Your task to perform on an android device: Is it going to rain this weekend? Image 0: 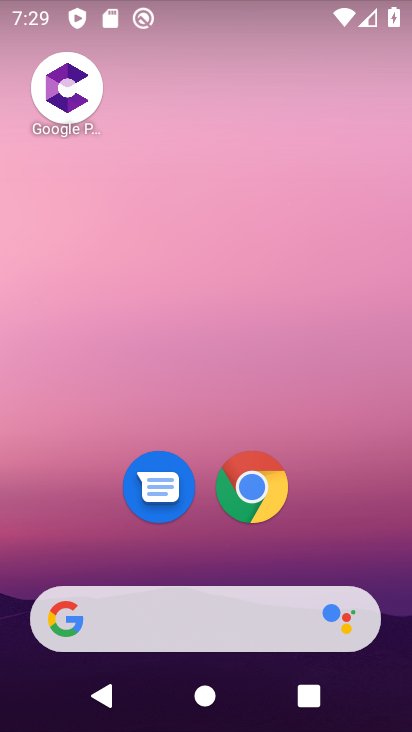
Step 0: drag from (370, 529) to (366, 85)
Your task to perform on an android device: Is it going to rain this weekend? Image 1: 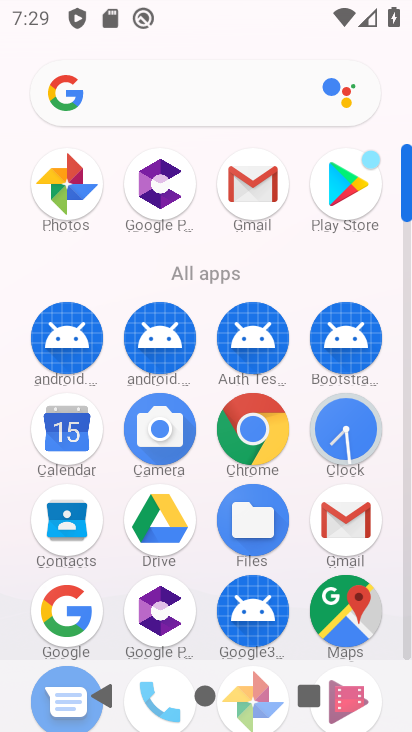
Step 1: click (237, 424)
Your task to perform on an android device: Is it going to rain this weekend? Image 2: 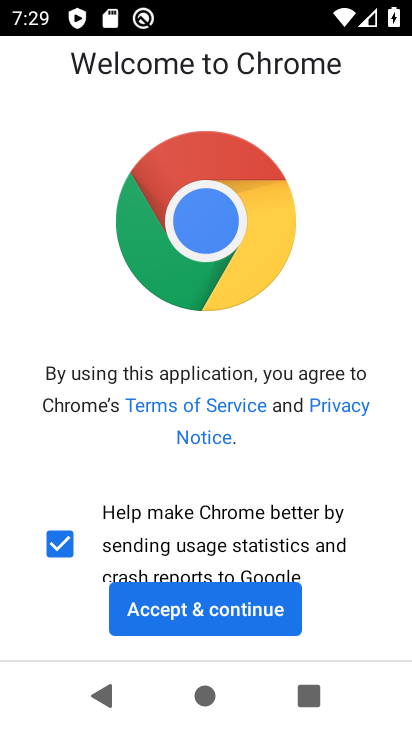
Step 2: click (192, 623)
Your task to perform on an android device: Is it going to rain this weekend? Image 3: 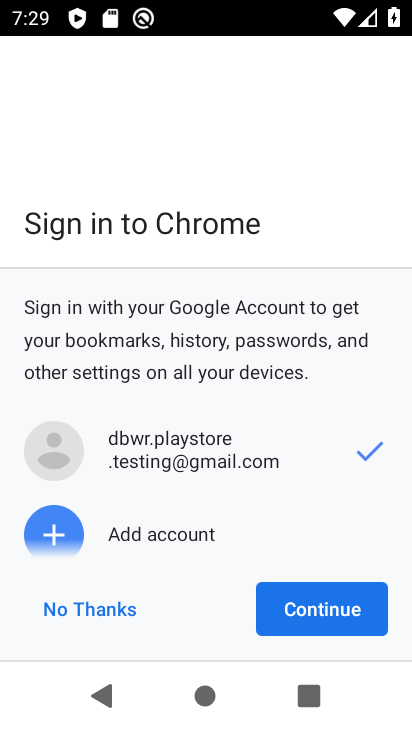
Step 3: click (303, 615)
Your task to perform on an android device: Is it going to rain this weekend? Image 4: 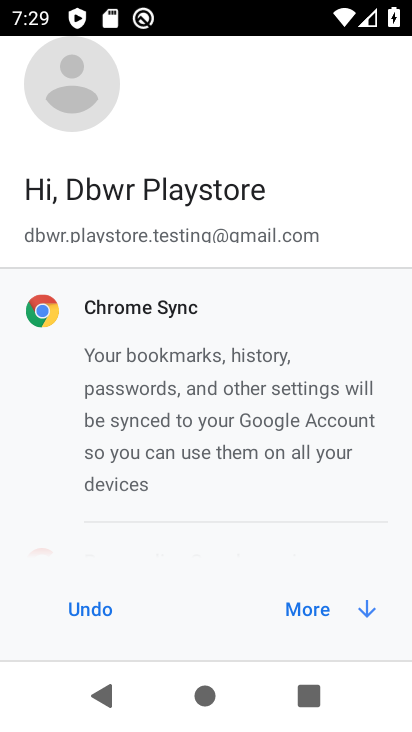
Step 4: click (295, 611)
Your task to perform on an android device: Is it going to rain this weekend? Image 5: 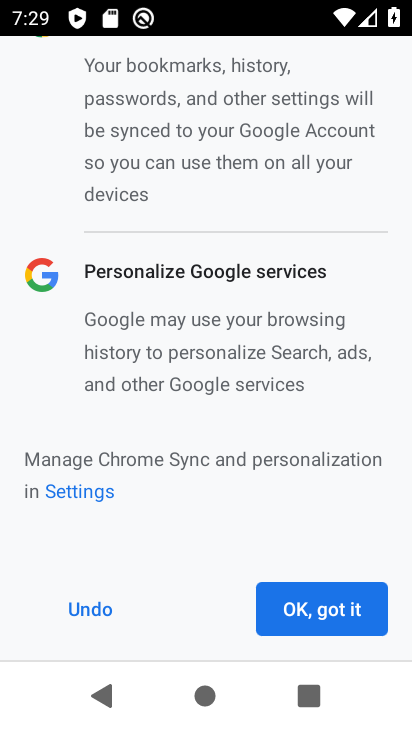
Step 5: click (297, 617)
Your task to perform on an android device: Is it going to rain this weekend? Image 6: 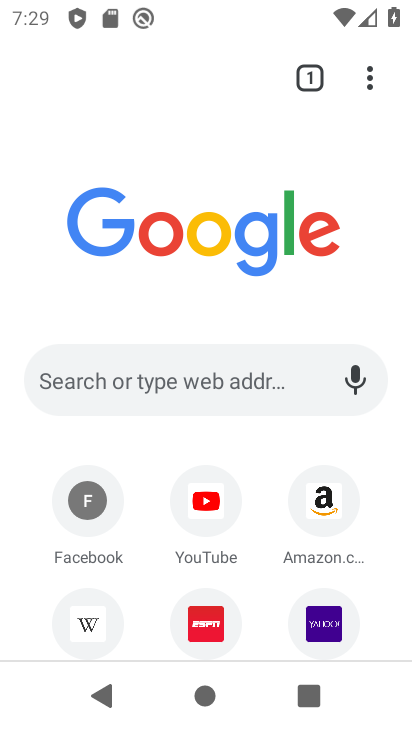
Step 6: click (231, 383)
Your task to perform on an android device: Is it going to rain this weekend? Image 7: 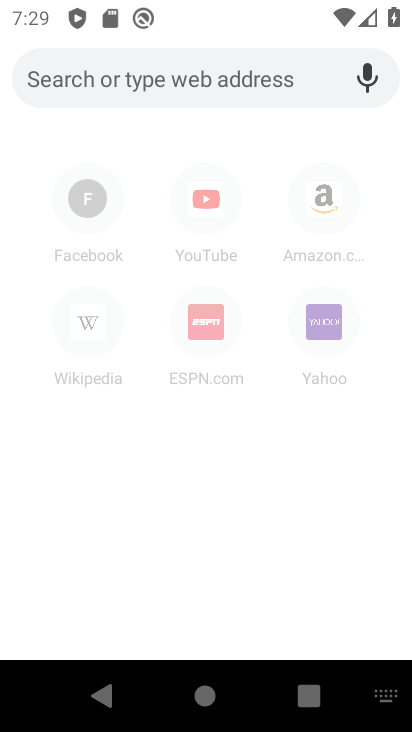
Step 7: type "is it going to rain this weekend"
Your task to perform on an android device: Is it going to rain this weekend? Image 8: 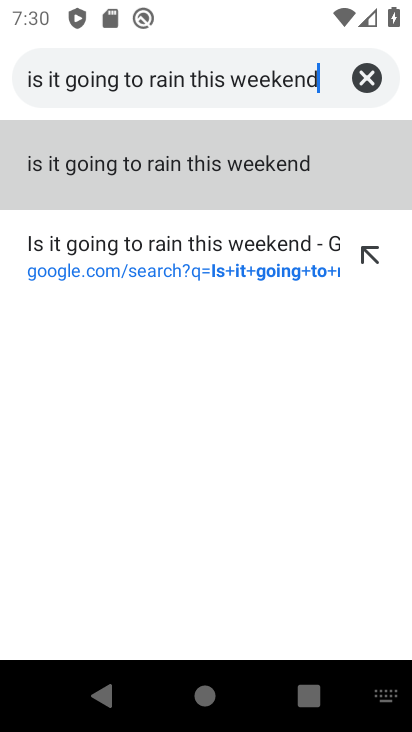
Step 8: click (138, 175)
Your task to perform on an android device: Is it going to rain this weekend? Image 9: 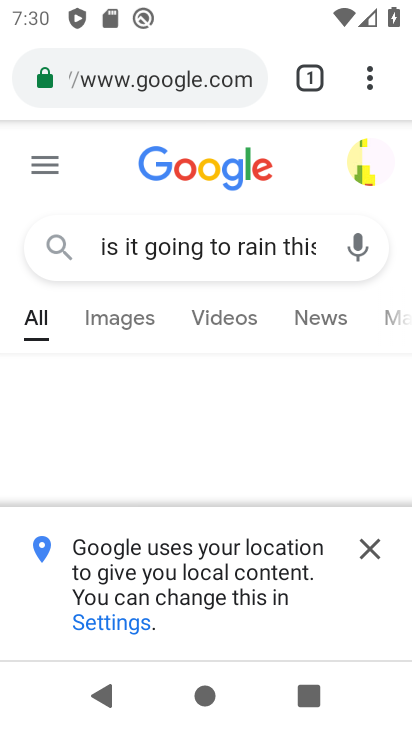
Step 9: click (371, 554)
Your task to perform on an android device: Is it going to rain this weekend? Image 10: 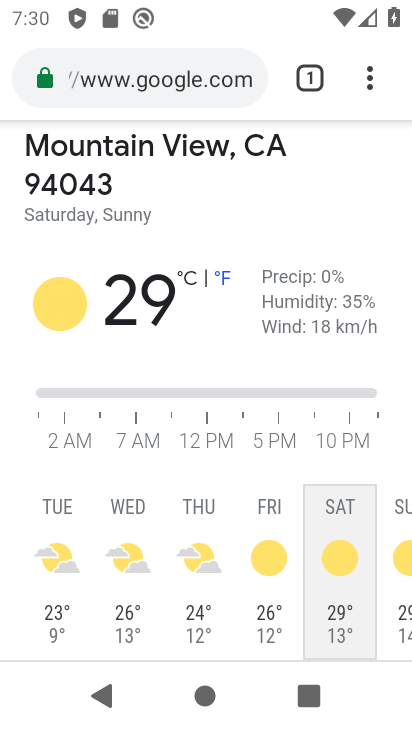
Step 10: task complete